Your task to perform on an android device: set default search engine in the chrome app Image 0: 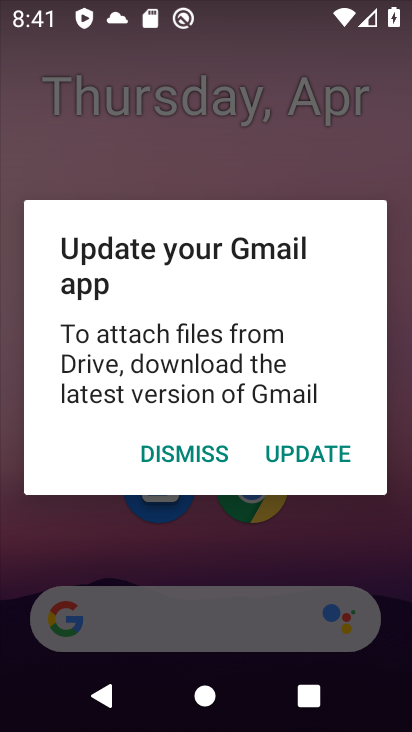
Step 0: click (222, 442)
Your task to perform on an android device: set default search engine in the chrome app Image 1: 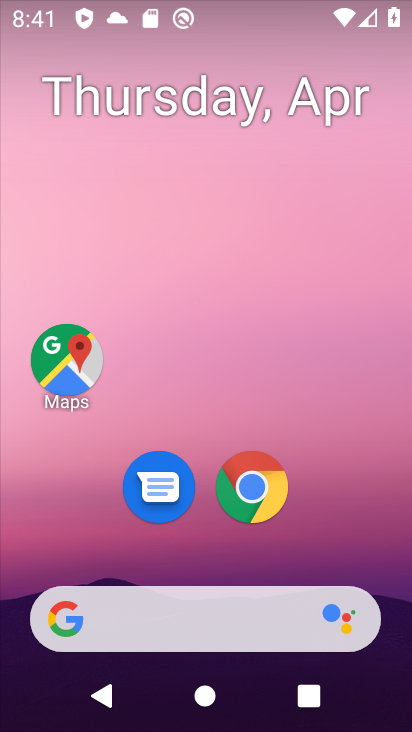
Step 1: click (256, 486)
Your task to perform on an android device: set default search engine in the chrome app Image 2: 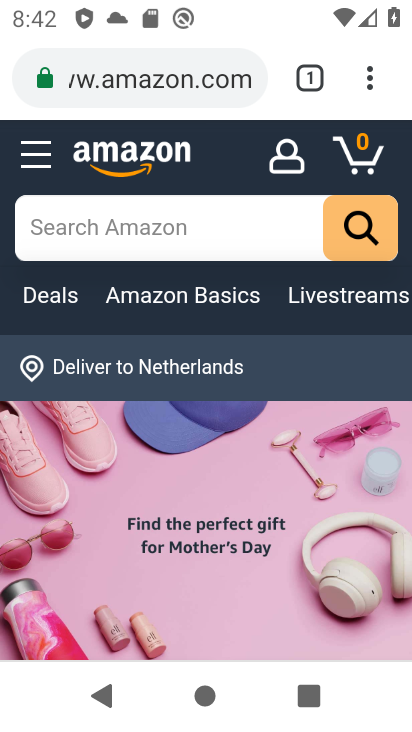
Step 2: click (370, 87)
Your task to perform on an android device: set default search engine in the chrome app Image 3: 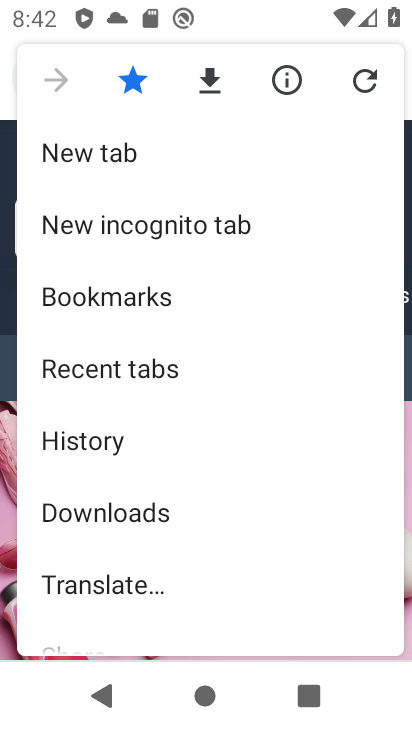
Step 3: drag from (158, 549) to (237, 202)
Your task to perform on an android device: set default search engine in the chrome app Image 4: 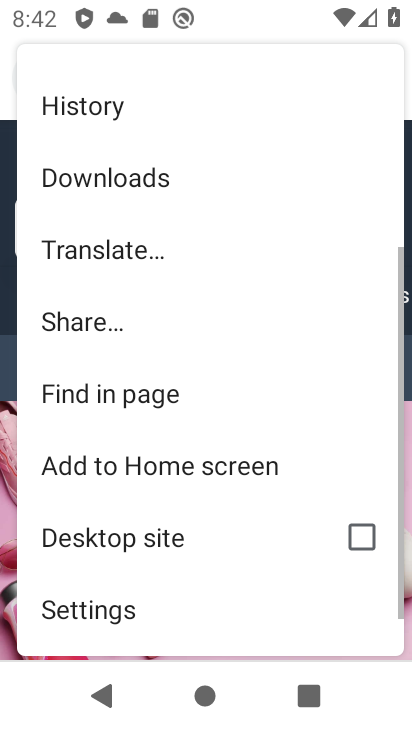
Step 4: click (139, 598)
Your task to perform on an android device: set default search engine in the chrome app Image 5: 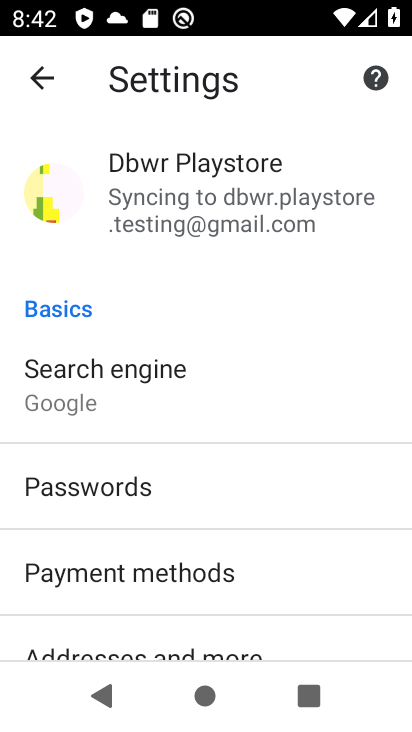
Step 5: drag from (139, 598) to (154, 342)
Your task to perform on an android device: set default search engine in the chrome app Image 6: 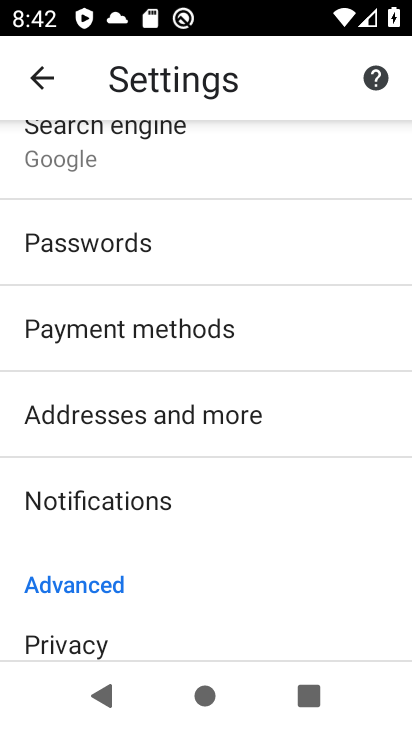
Step 6: click (137, 309)
Your task to perform on an android device: set default search engine in the chrome app Image 7: 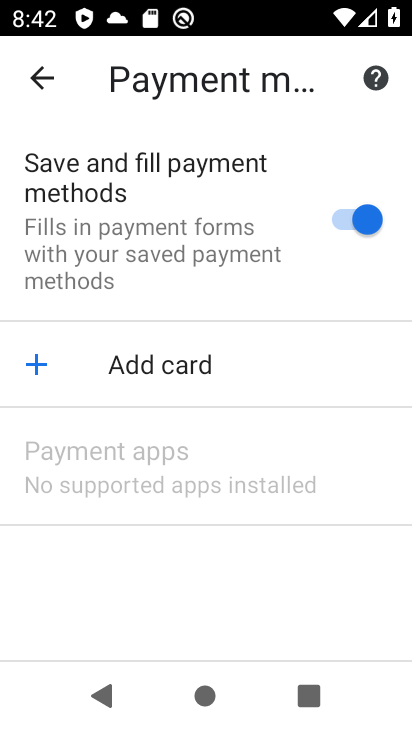
Step 7: click (48, 74)
Your task to perform on an android device: set default search engine in the chrome app Image 8: 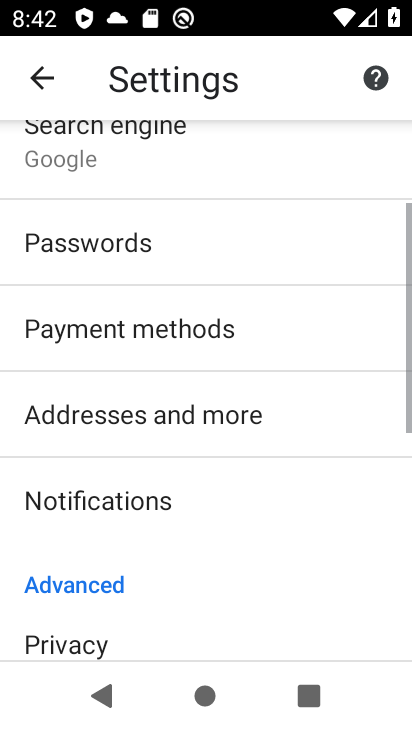
Step 8: drag from (165, 244) to (168, 434)
Your task to perform on an android device: set default search engine in the chrome app Image 9: 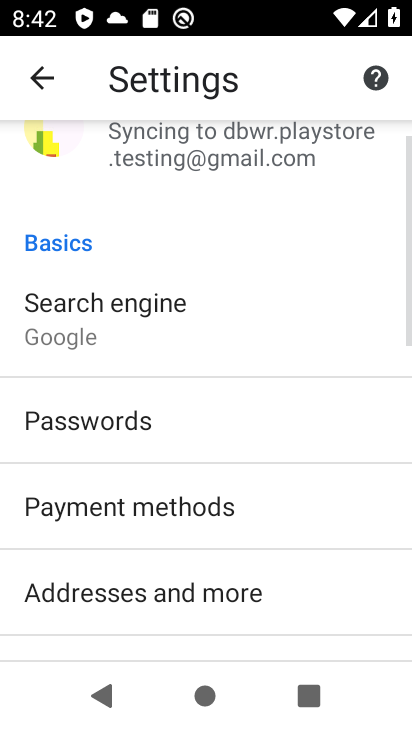
Step 9: click (152, 319)
Your task to perform on an android device: set default search engine in the chrome app Image 10: 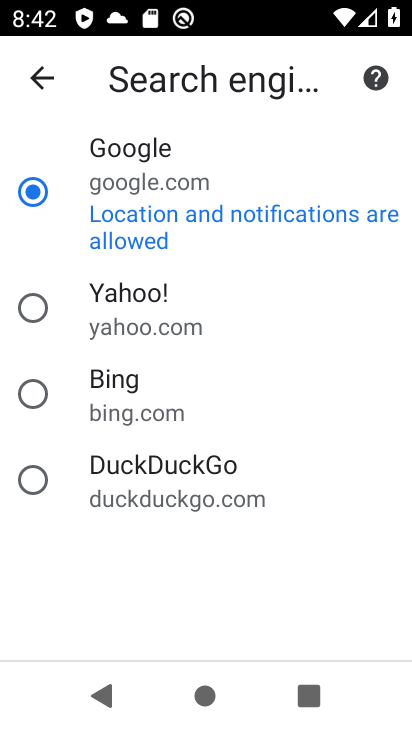
Step 10: click (109, 377)
Your task to perform on an android device: set default search engine in the chrome app Image 11: 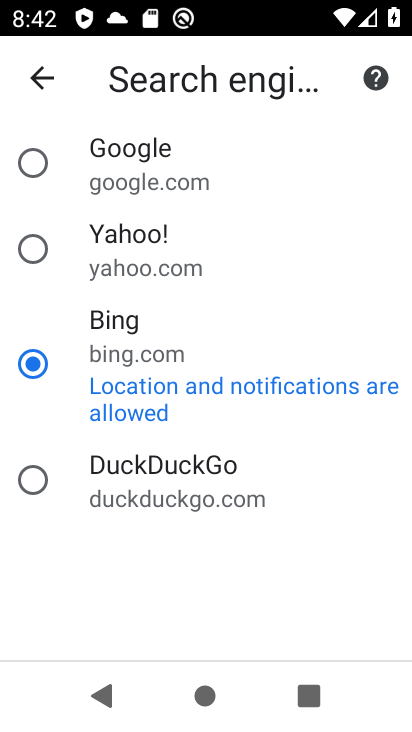
Step 11: task complete